Your task to perform on an android device: Search for vegetarian restaurants on Maps Image 0: 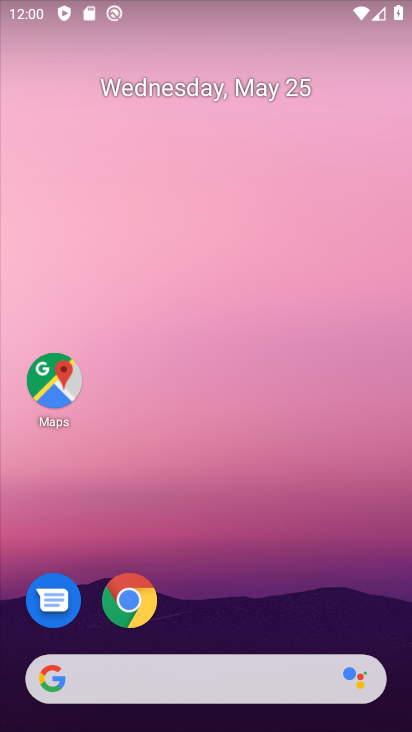
Step 0: click (35, 379)
Your task to perform on an android device: Search for vegetarian restaurants on Maps Image 1: 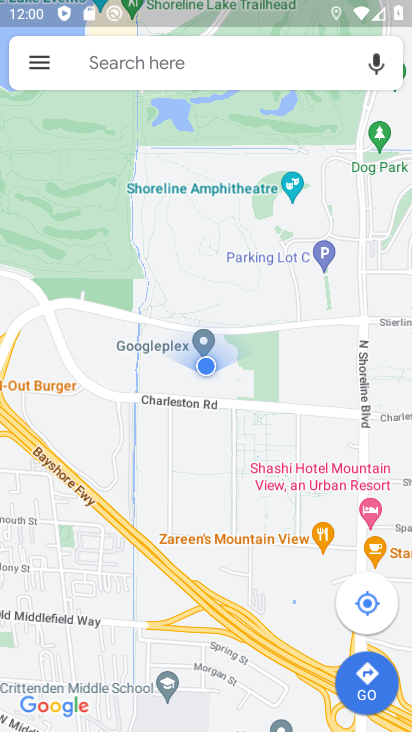
Step 1: click (148, 51)
Your task to perform on an android device: Search for vegetarian restaurants on Maps Image 2: 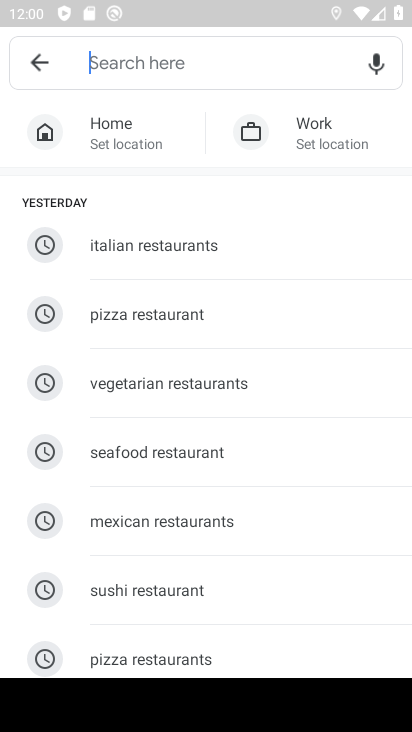
Step 2: type "vegetarian restaurants"
Your task to perform on an android device: Search for vegetarian restaurants on Maps Image 3: 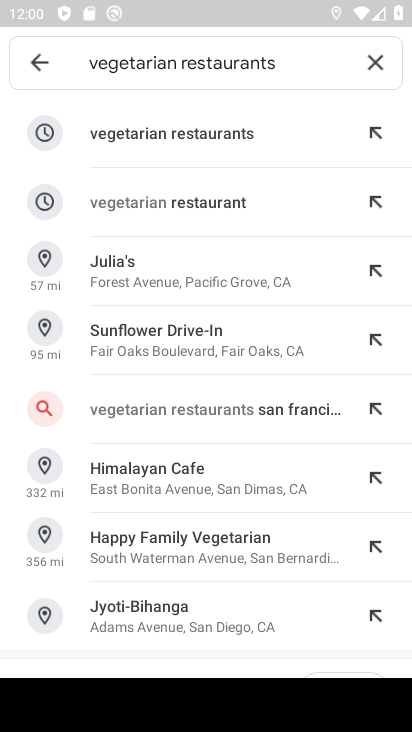
Step 3: click (143, 136)
Your task to perform on an android device: Search for vegetarian restaurants on Maps Image 4: 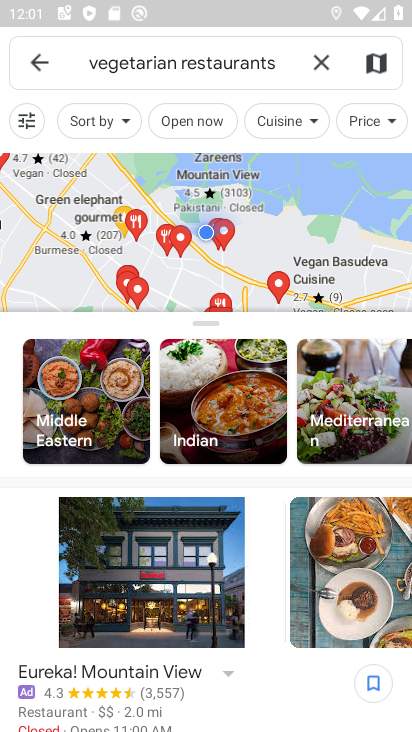
Step 4: task complete